Your task to perform on an android device: show emergency info Image 0: 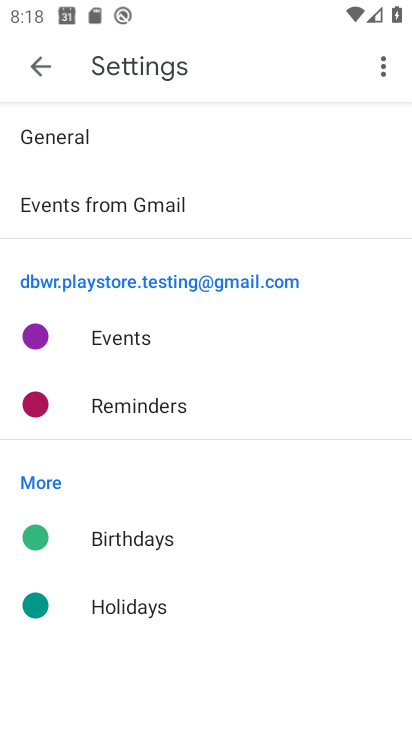
Step 0: press home button
Your task to perform on an android device: show emergency info Image 1: 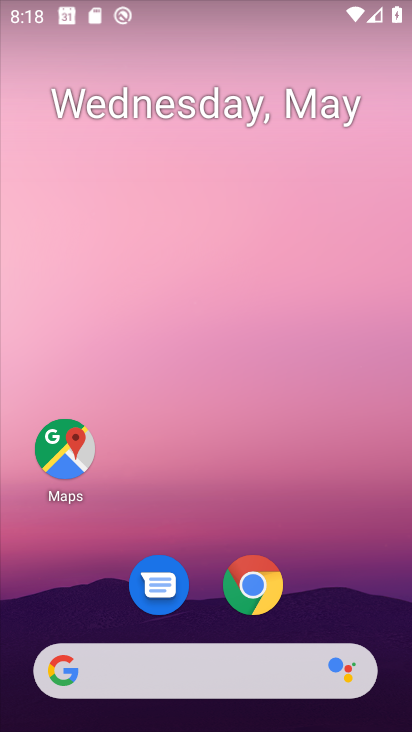
Step 1: drag from (301, 503) to (215, 71)
Your task to perform on an android device: show emergency info Image 2: 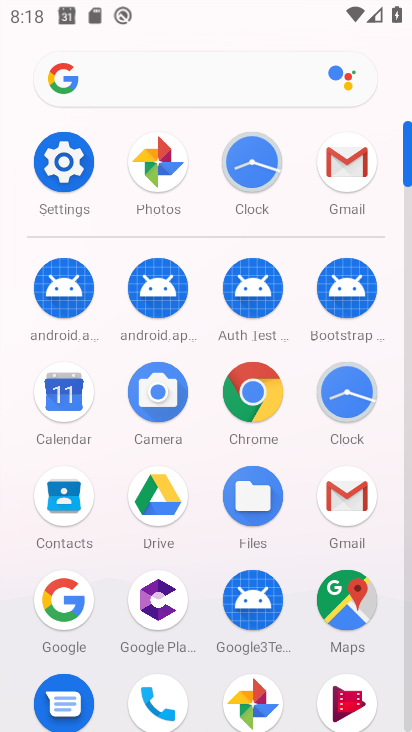
Step 2: click (64, 175)
Your task to perform on an android device: show emergency info Image 3: 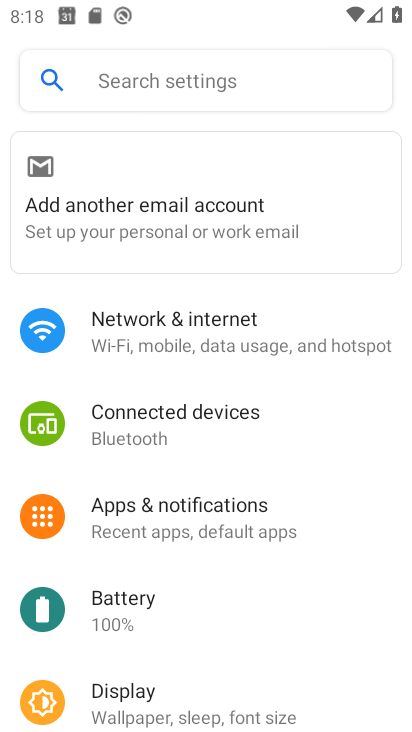
Step 3: drag from (196, 534) to (212, 153)
Your task to perform on an android device: show emergency info Image 4: 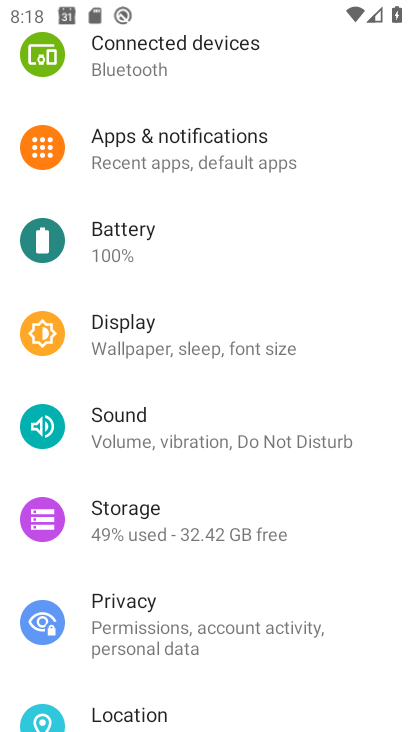
Step 4: drag from (253, 566) to (234, 119)
Your task to perform on an android device: show emergency info Image 5: 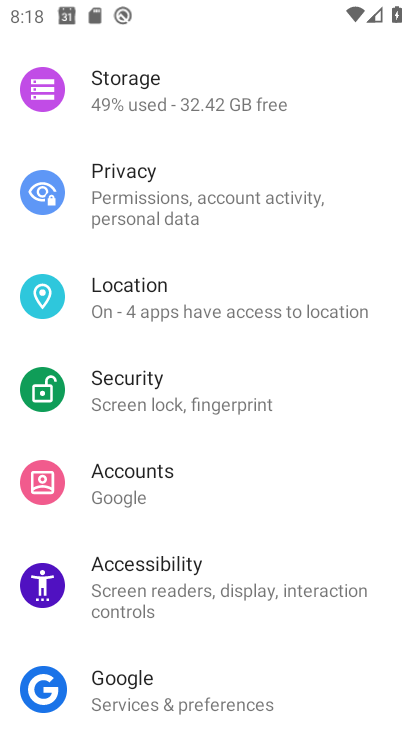
Step 5: drag from (243, 505) to (229, 197)
Your task to perform on an android device: show emergency info Image 6: 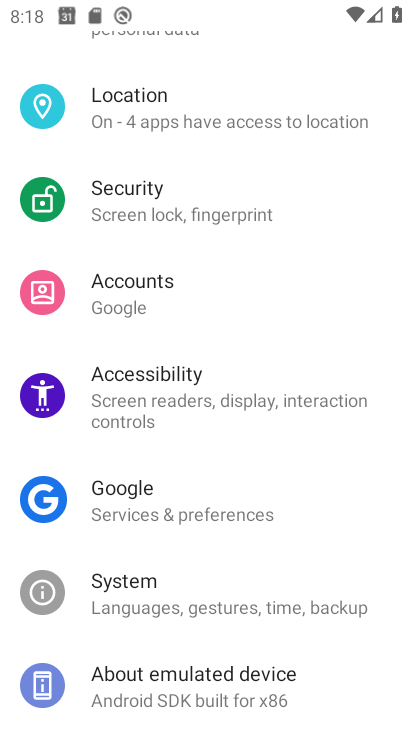
Step 6: click (194, 673)
Your task to perform on an android device: show emergency info Image 7: 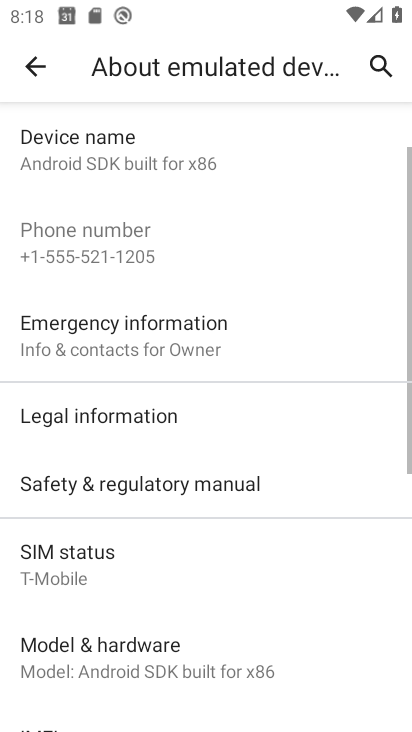
Step 7: click (204, 331)
Your task to perform on an android device: show emergency info Image 8: 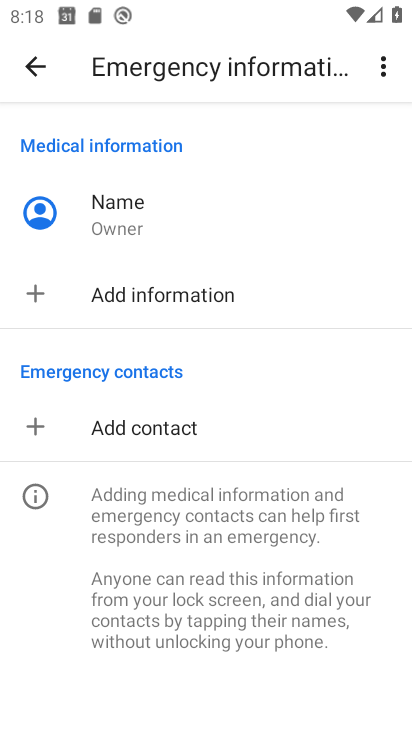
Step 8: task complete